Your task to perform on an android device: What's the weather going to be tomorrow? Image 0: 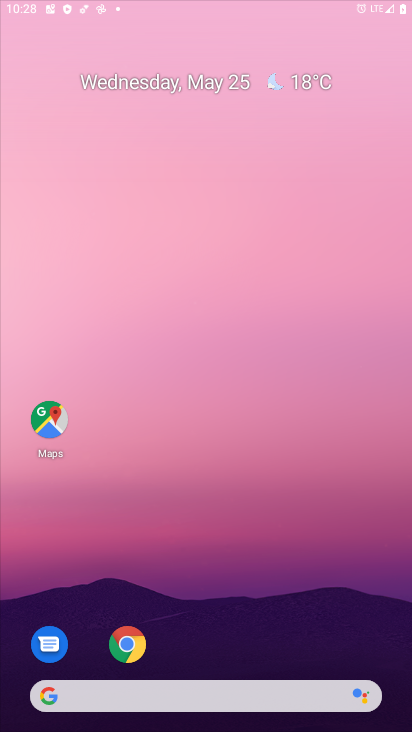
Step 0: press home button
Your task to perform on an android device: What's the weather going to be tomorrow? Image 1: 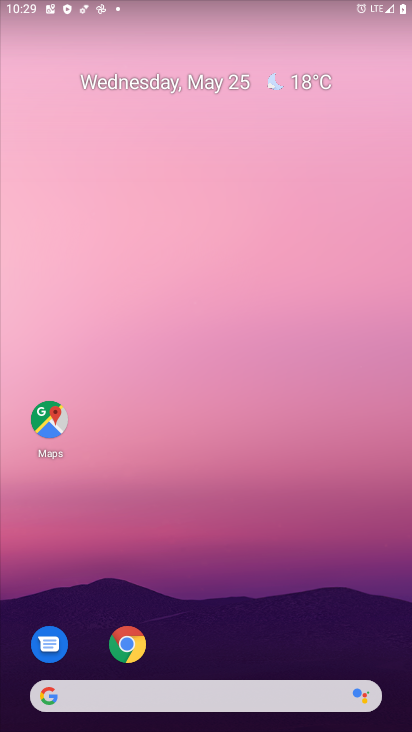
Step 1: click (306, 78)
Your task to perform on an android device: What's the weather going to be tomorrow? Image 2: 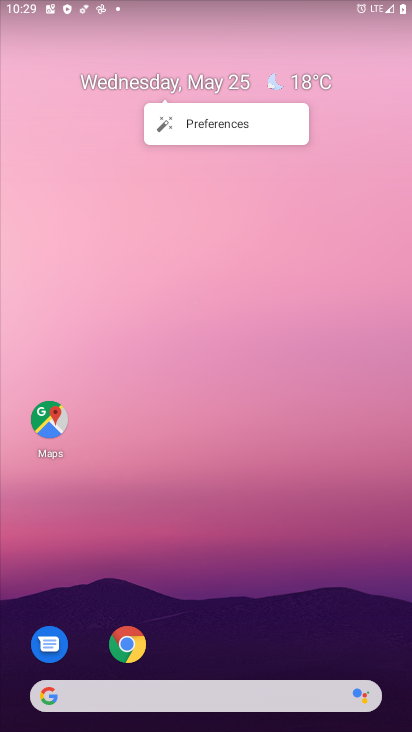
Step 2: click (304, 77)
Your task to perform on an android device: What's the weather going to be tomorrow? Image 3: 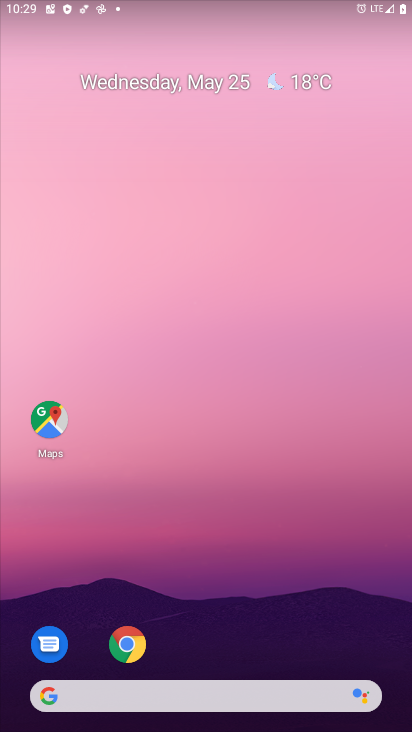
Step 3: click (312, 80)
Your task to perform on an android device: What's the weather going to be tomorrow? Image 4: 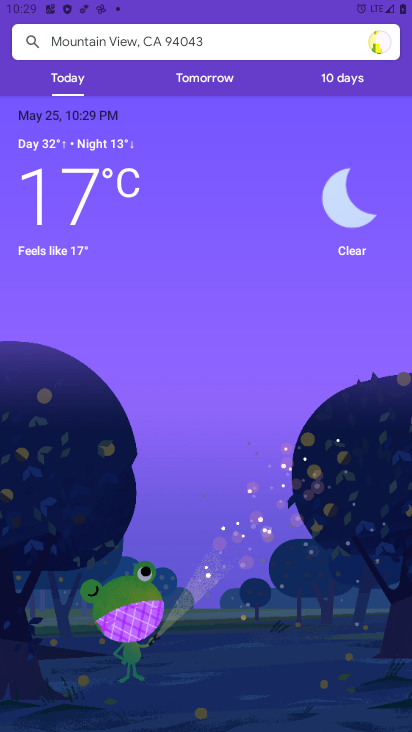
Step 4: drag from (170, 576) to (175, 148)
Your task to perform on an android device: What's the weather going to be tomorrow? Image 5: 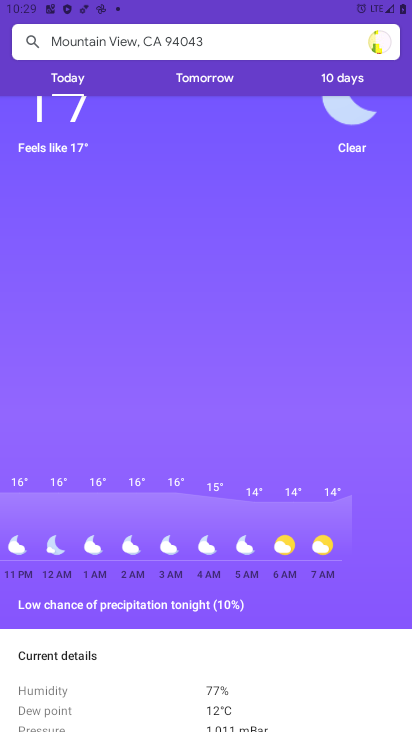
Step 5: click (194, 74)
Your task to perform on an android device: What's the weather going to be tomorrow? Image 6: 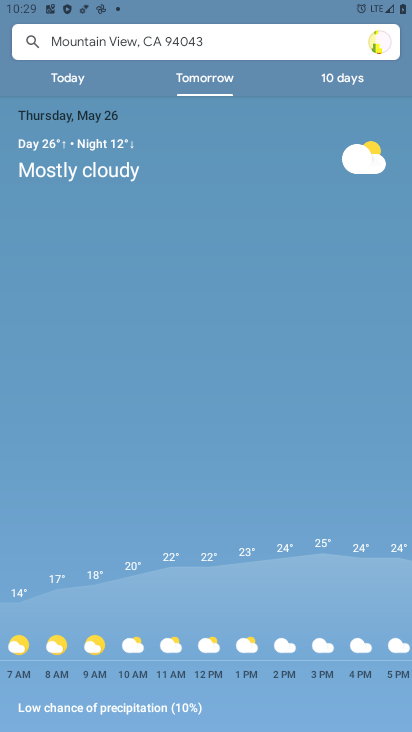
Step 6: task complete